Your task to perform on an android device: open app "LiveIn - Share Your Moment" Image 0: 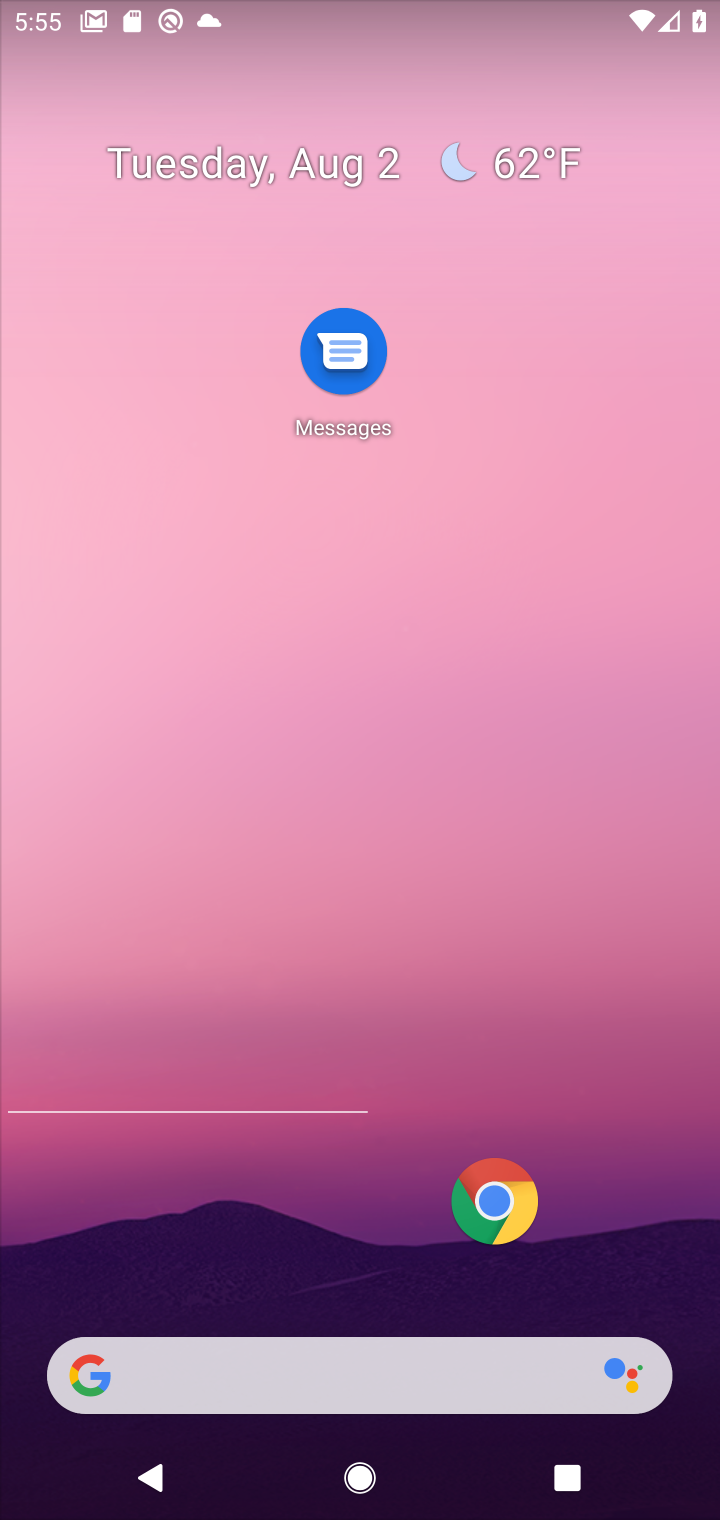
Step 0: click (559, 179)
Your task to perform on an android device: open app "LiveIn - Share Your Moment" Image 1: 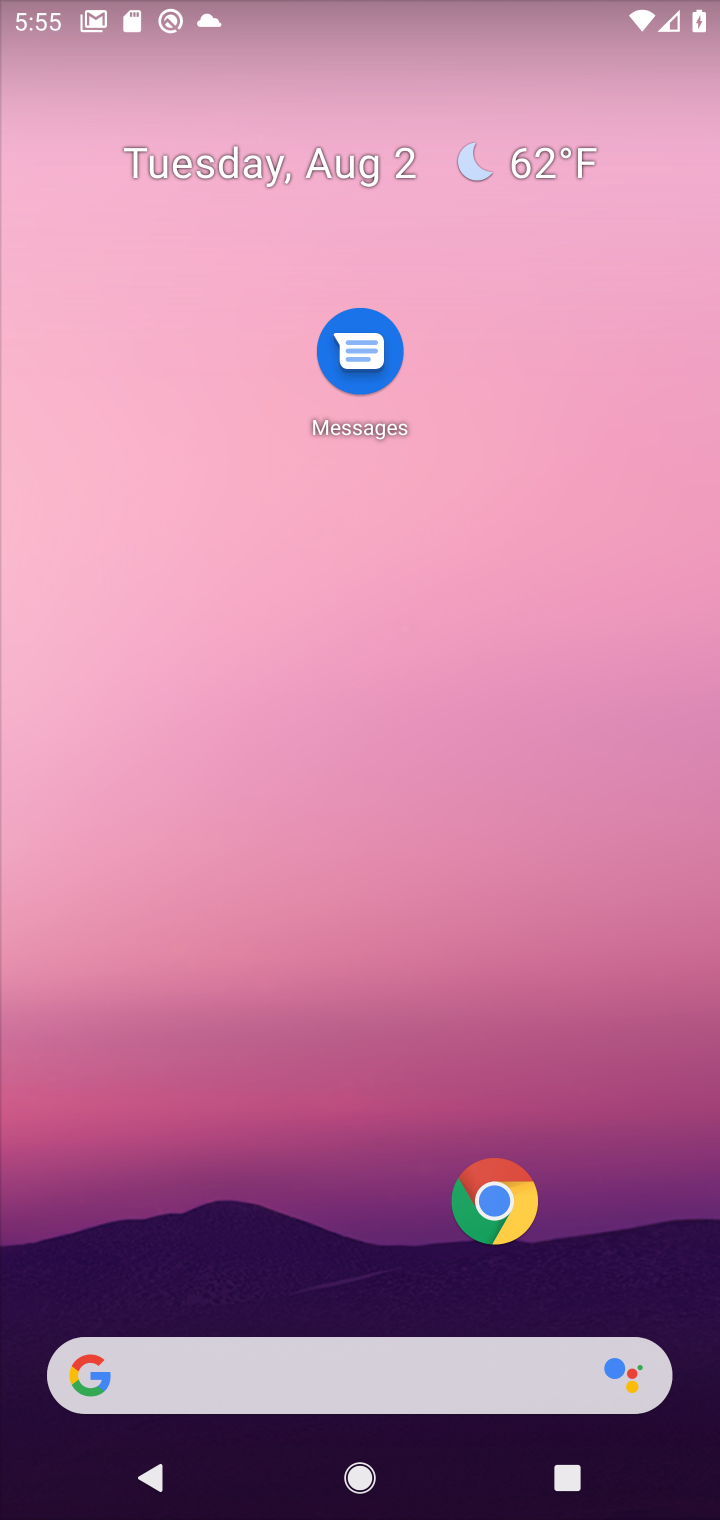
Step 1: drag from (292, 522) to (703, 1498)
Your task to perform on an android device: open app "LiveIn - Share Your Moment" Image 2: 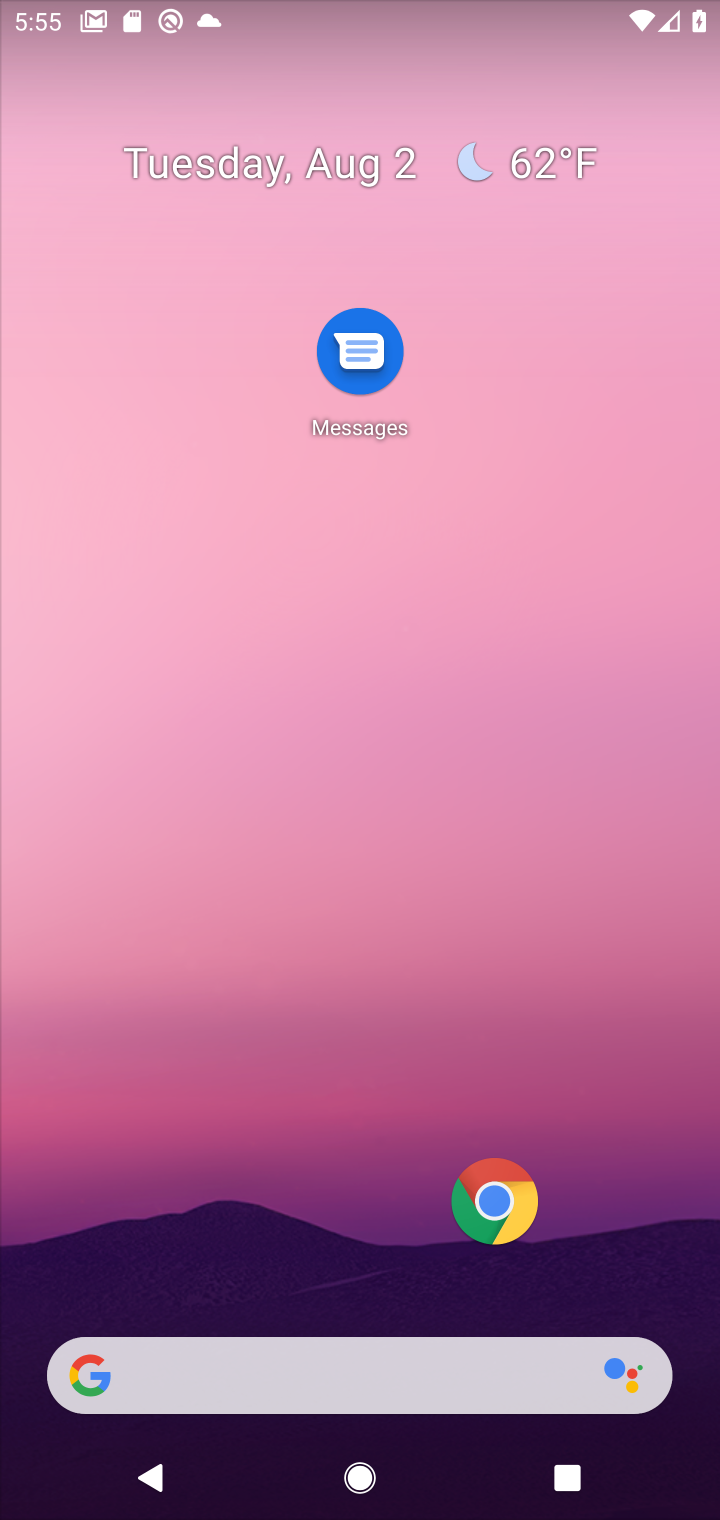
Step 2: drag from (357, 1118) to (441, 331)
Your task to perform on an android device: open app "LiveIn - Share Your Moment" Image 3: 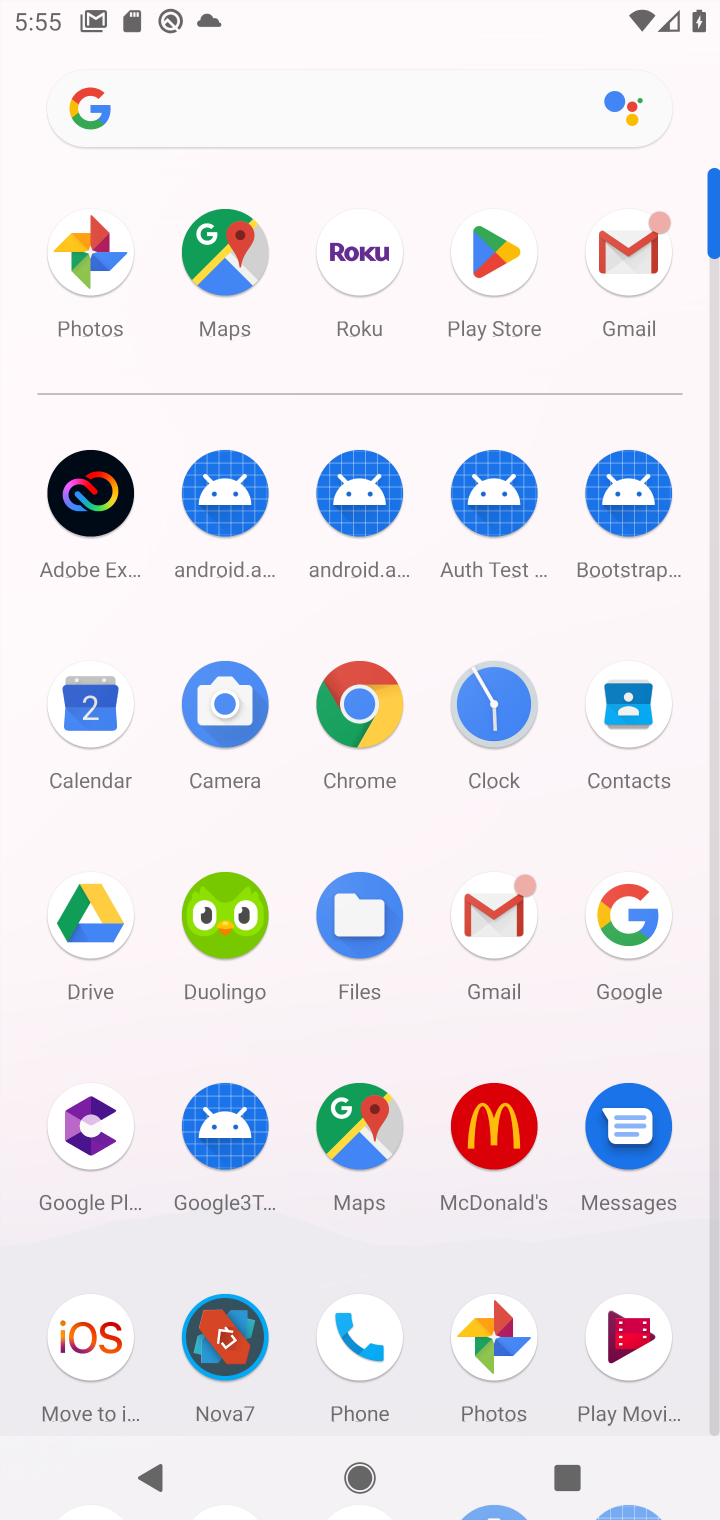
Step 3: drag from (404, 1303) to (378, 442)
Your task to perform on an android device: open app "LiveIn - Share Your Moment" Image 4: 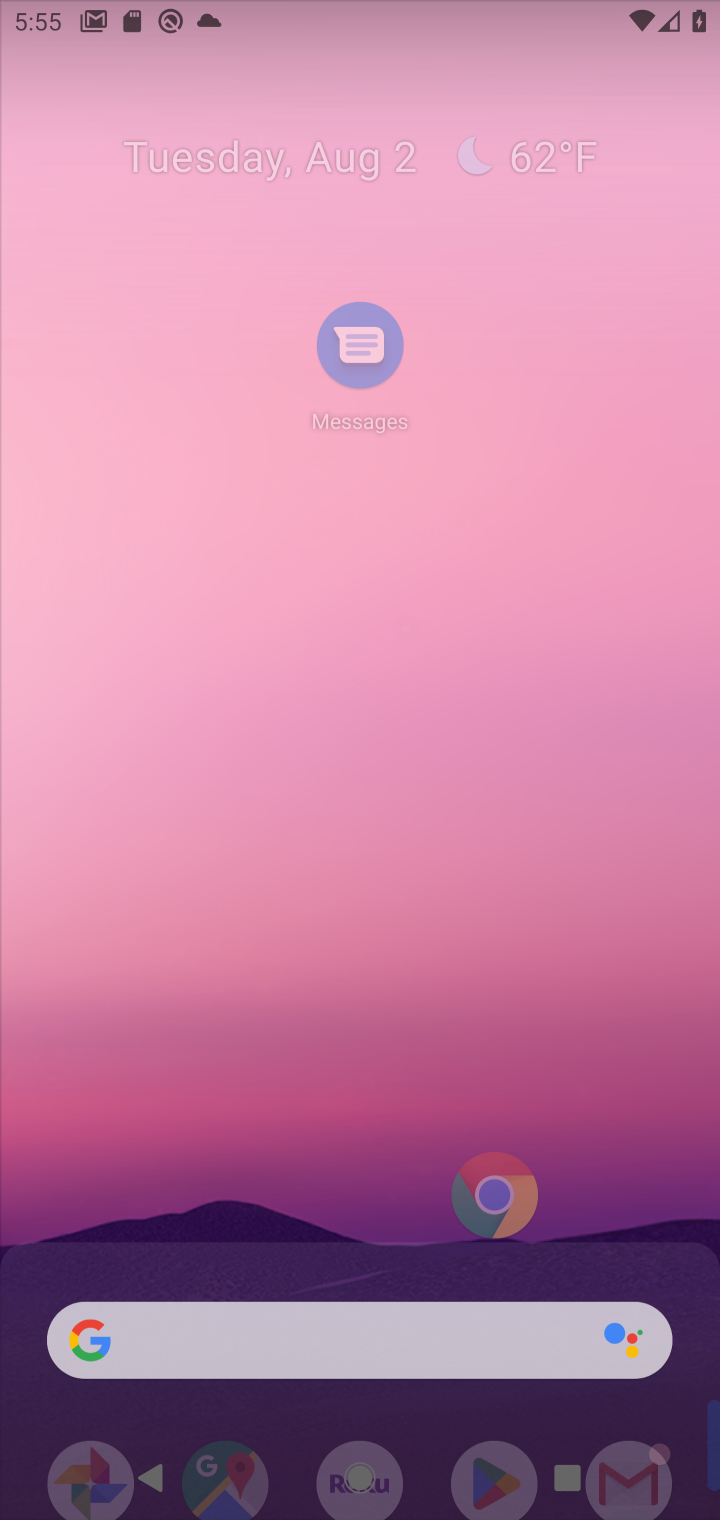
Step 4: drag from (439, 1260) to (477, 478)
Your task to perform on an android device: open app "LiveIn - Share Your Moment" Image 5: 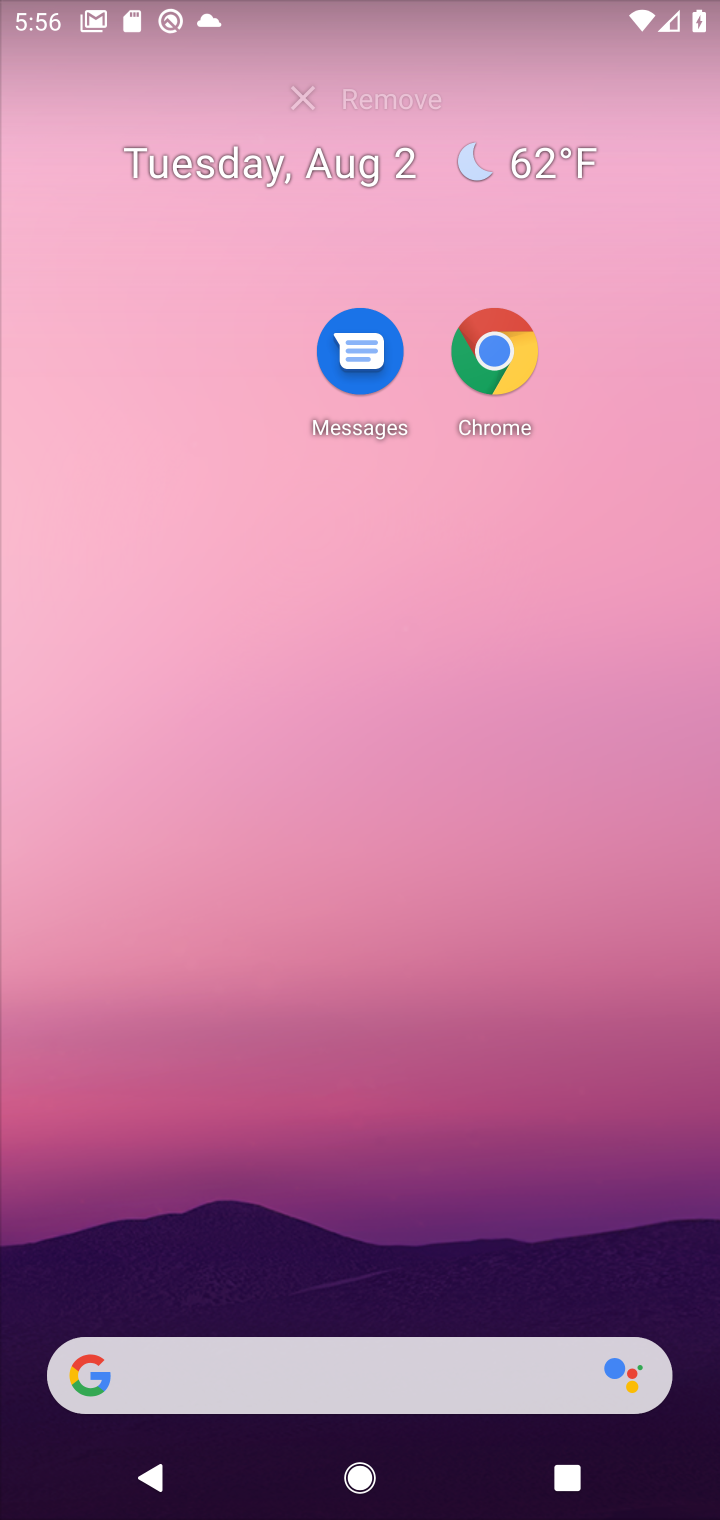
Step 5: drag from (395, 1253) to (395, 279)
Your task to perform on an android device: open app "LiveIn - Share Your Moment" Image 6: 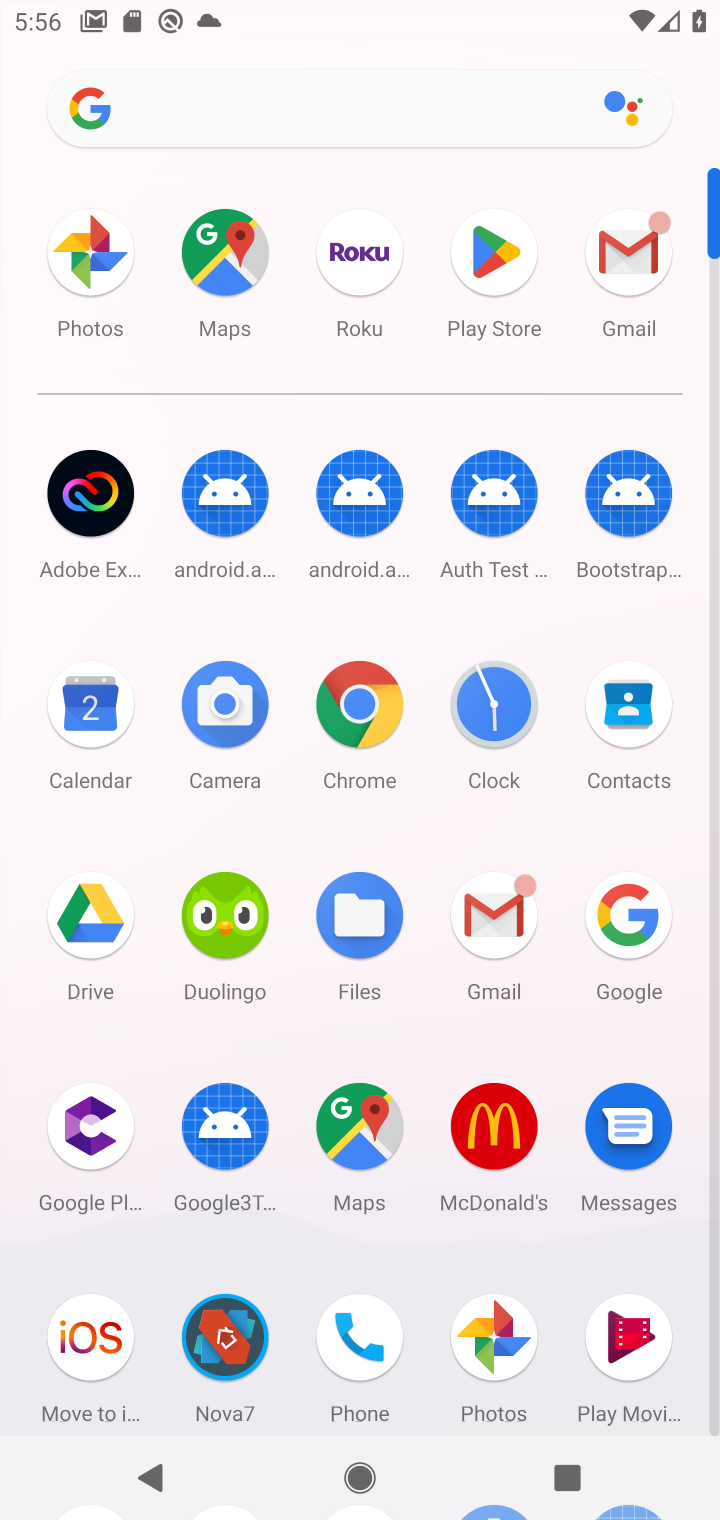
Step 6: click (514, 235)
Your task to perform on an android device: open app "LiveIn - Share Your Moment" Image 7: 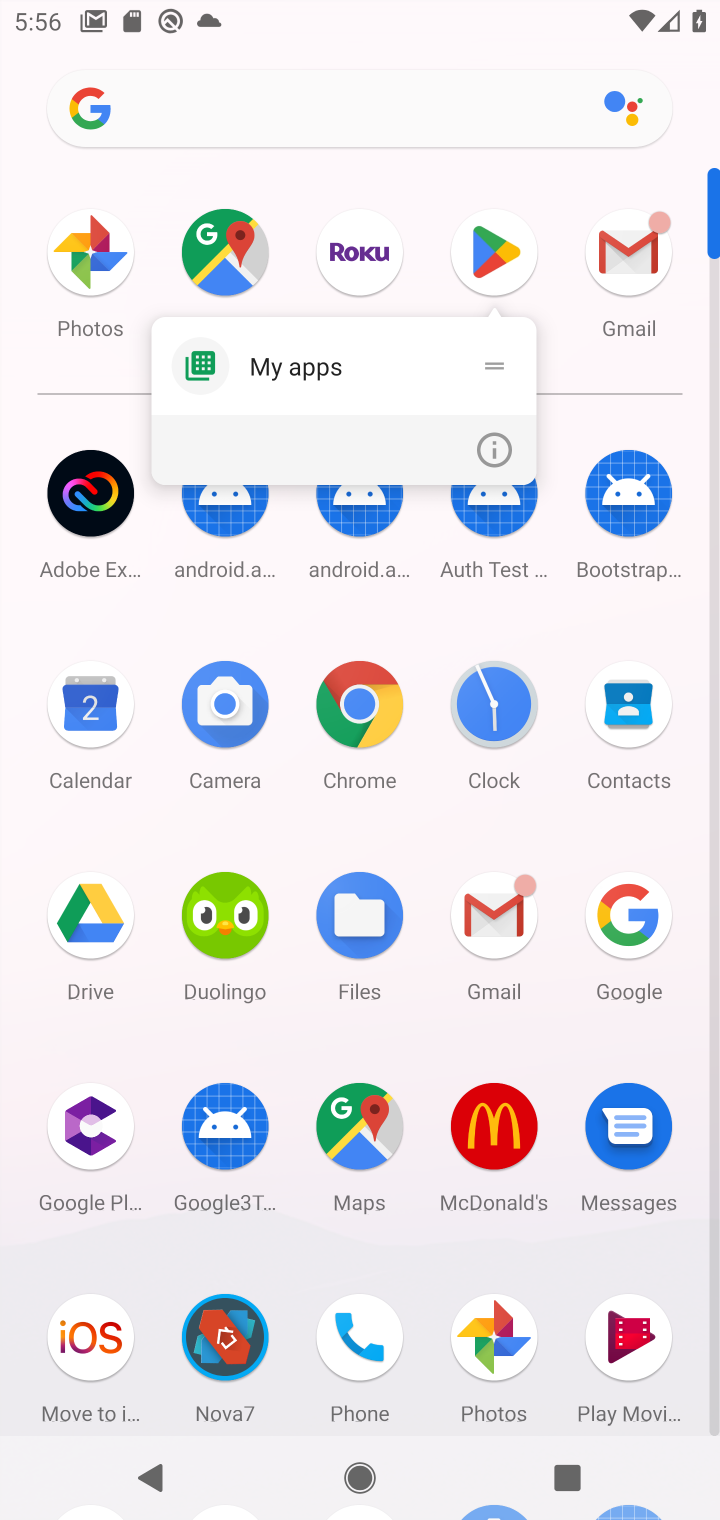
Step 7: click (503, 444)
Your task to perform on an android device: open app "LiveIn - Share Your Moment" Image 8: 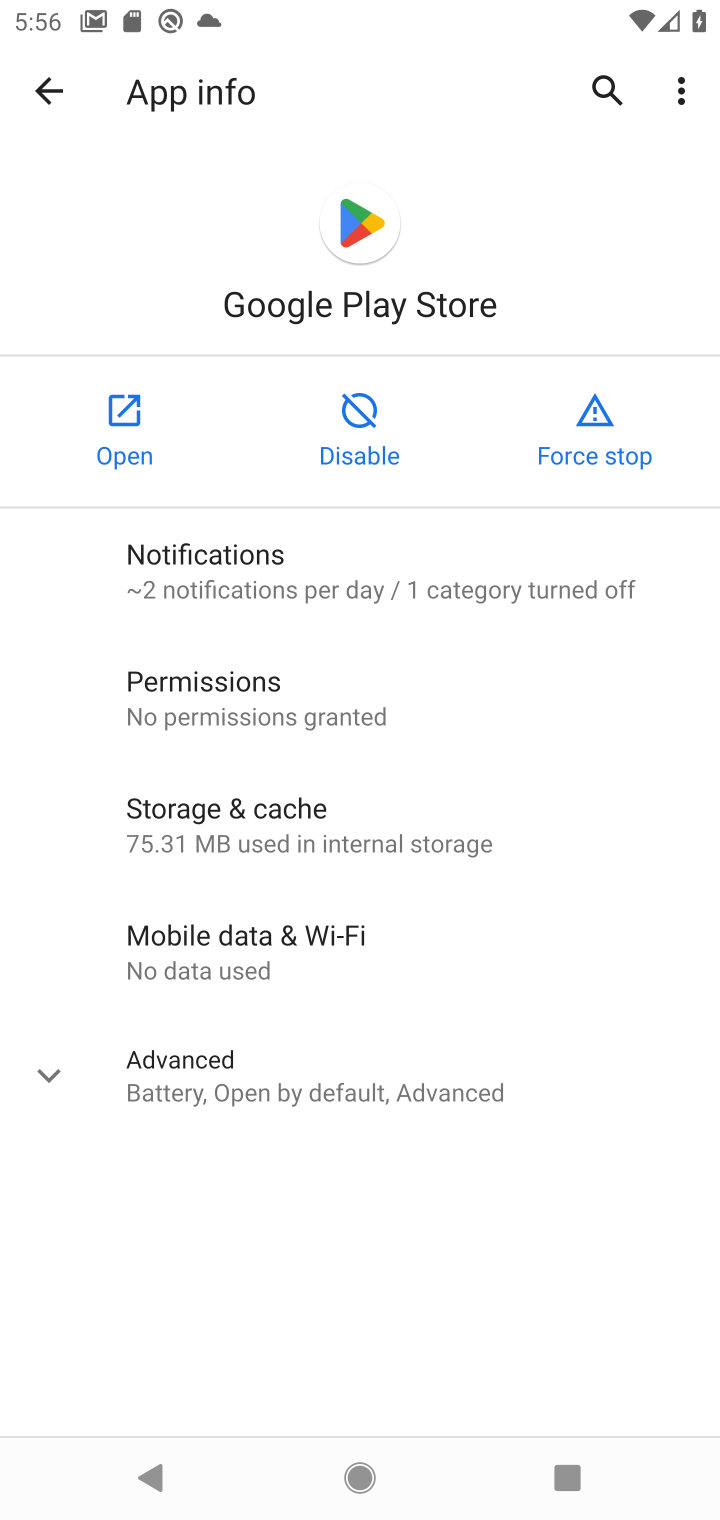
Step 8: click (118, 410)
Your task to perform on an android device: open app "LiveIn - Share Your Moment" Image 9: 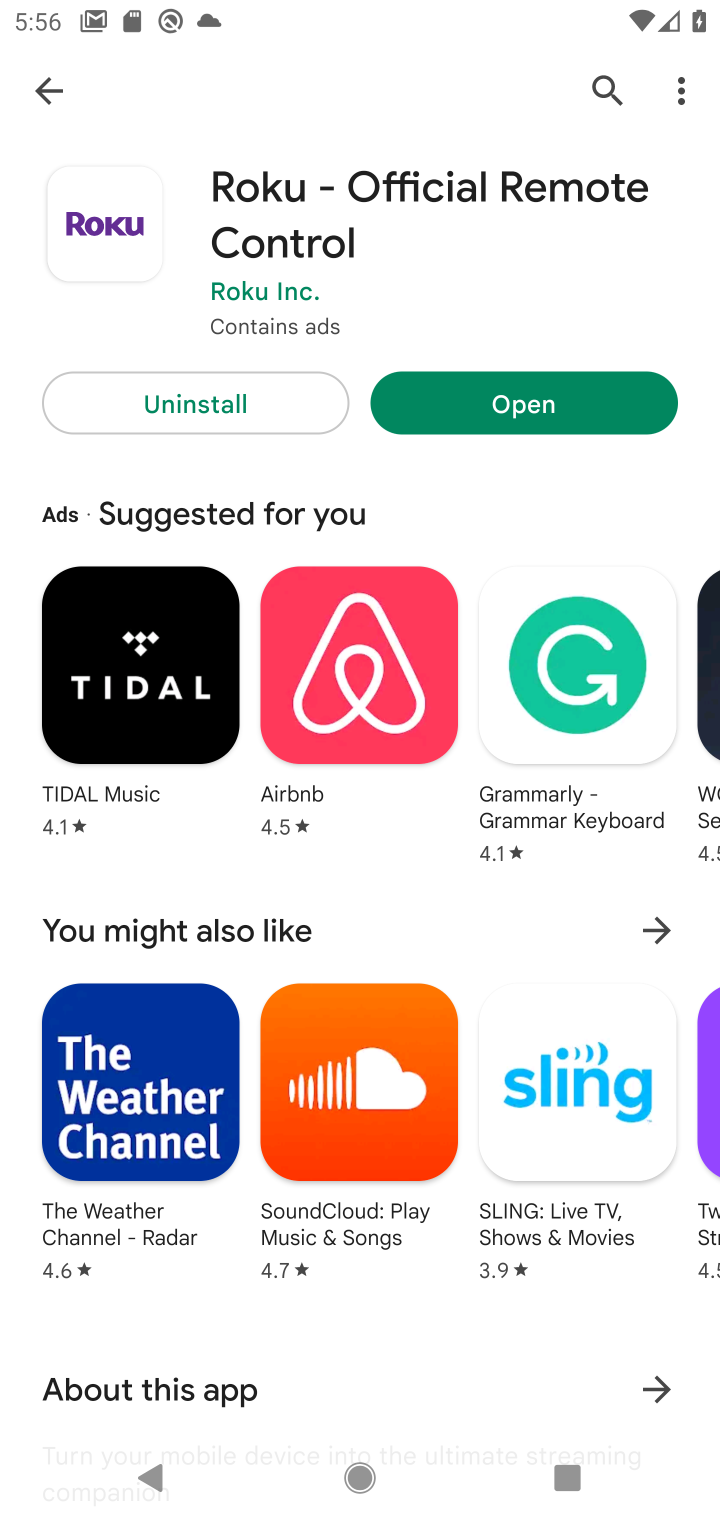
Step 9: drag from (284, 496) to (151, 1514)
Your task to perform on an android device: open app "LiveIn - Share Your Moment" Image 10: 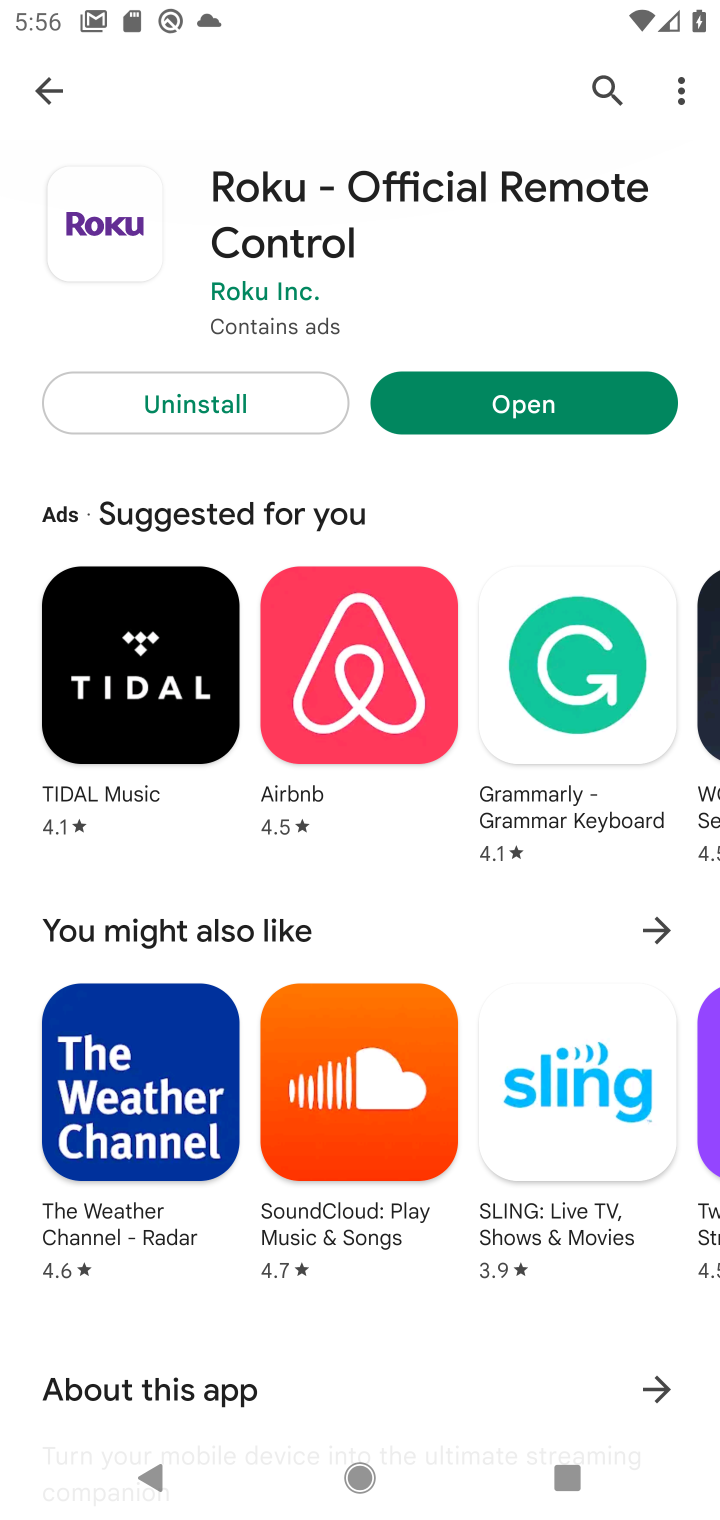
Step 10: drag from (392, 636) to (514, 1291)
Your task to perform on an android device: open app "LiveIn - Share Your Moment" Image 11: 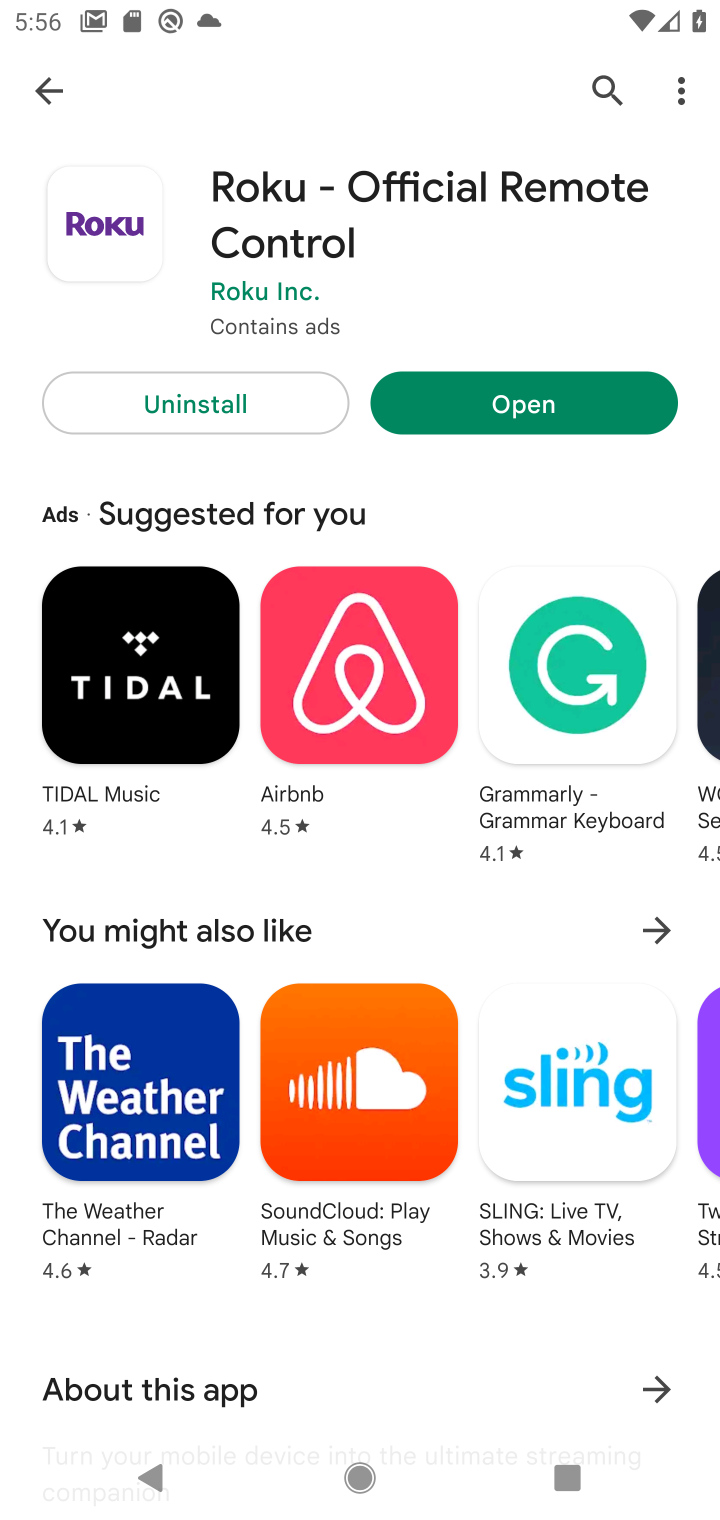
Step 11: drag from (359, 563) to (86, 175)
Your task to perform on an android device: open app "LiveIn - Share Your Moment" Image 12: 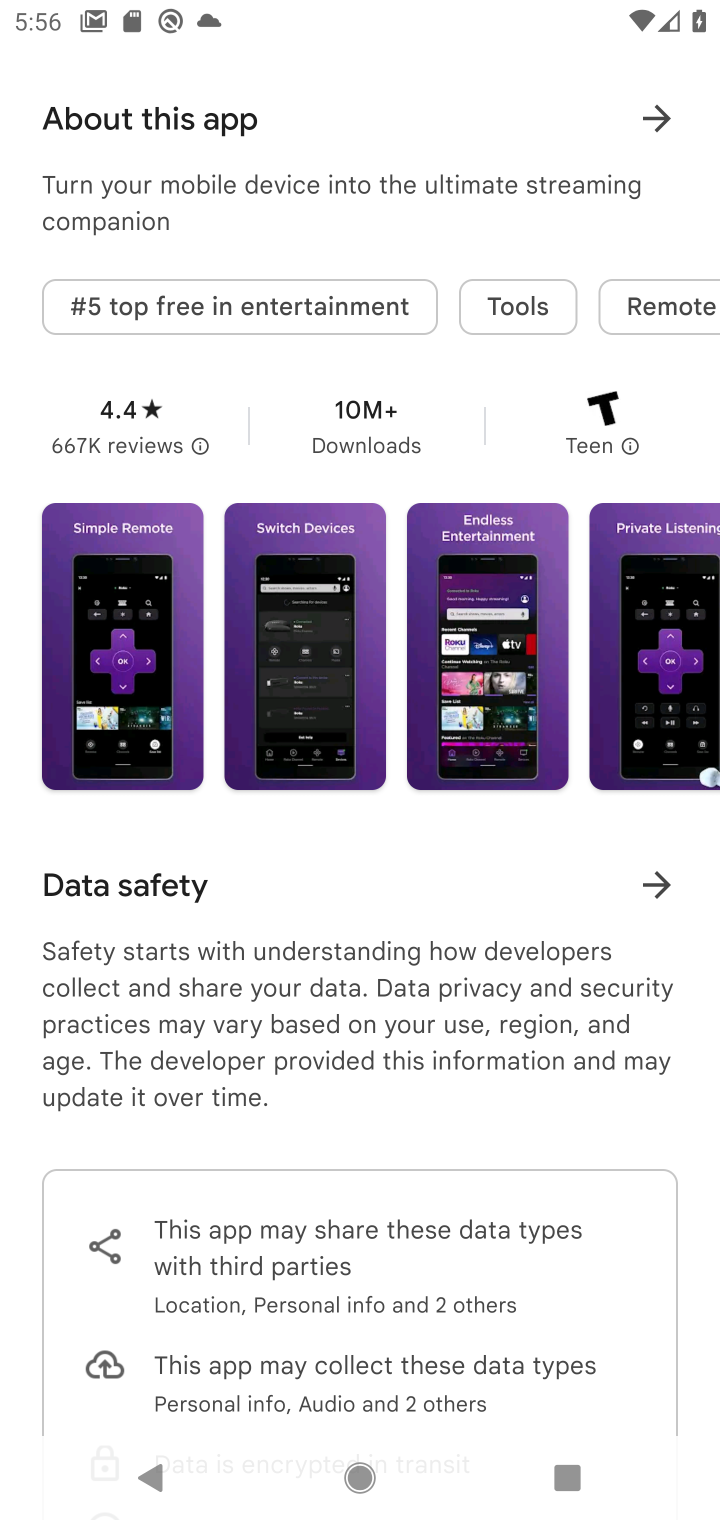
Step 12: drag from (342, 525) to (487, 1500)
Your task to perform on an android device: open app "LiveIn - Share Your Moment" Image 13: 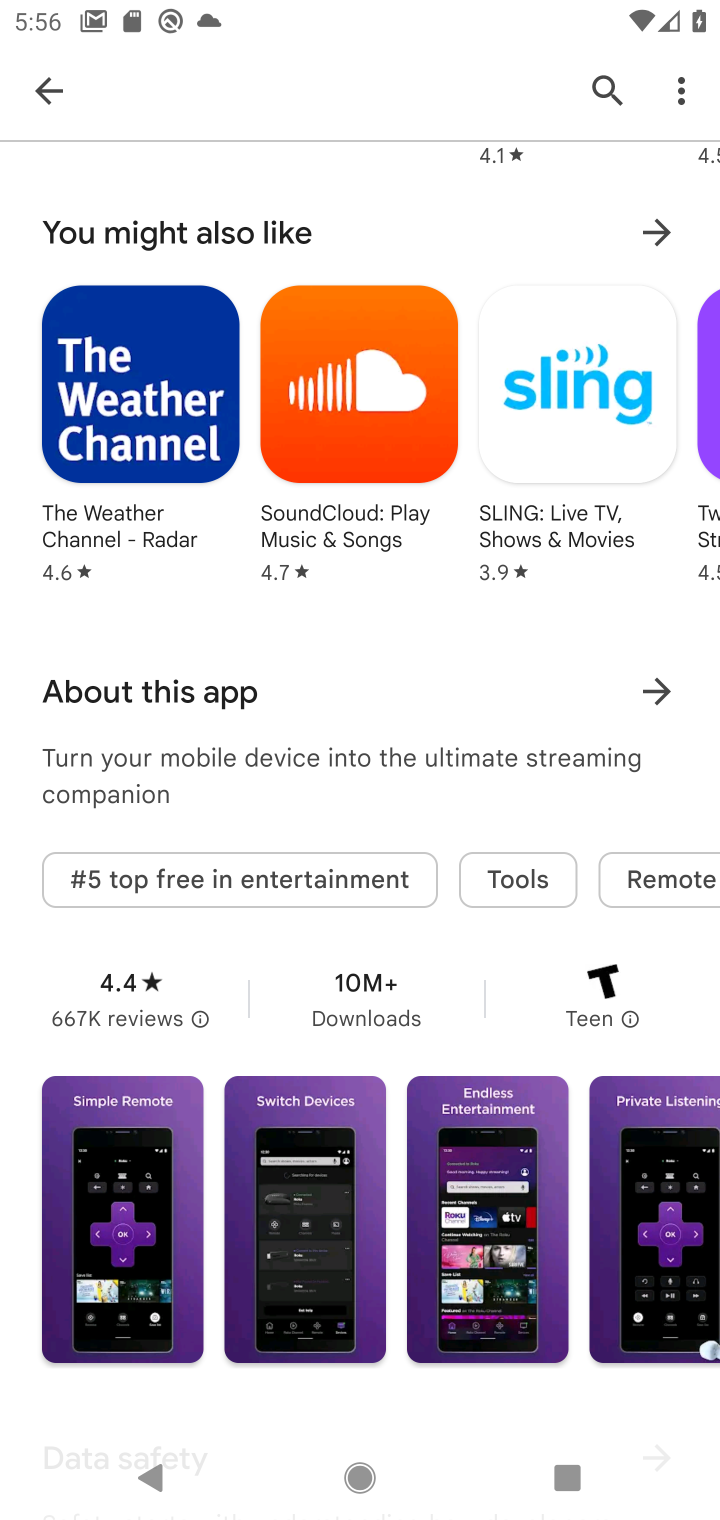
Step 13: drag from (385, 968) to (441, 1511)
Your task to perform on an android device: open app "LiveIn - Share Your Moment" Image 14: 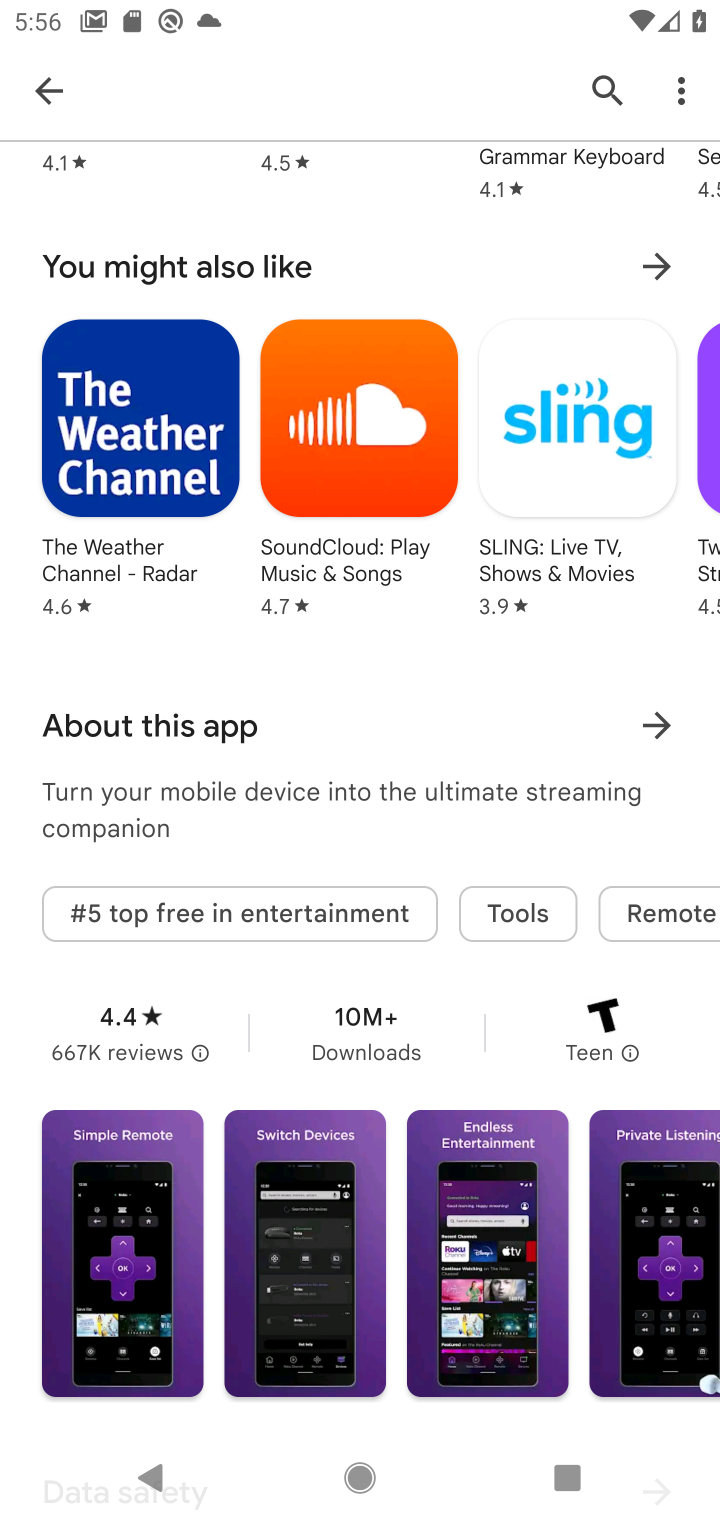
Step 14: drag from (333, 519) to (557, 1511)
Your task to perform on an android device: open app "LiveIn - Share Your Moment" Image 15: 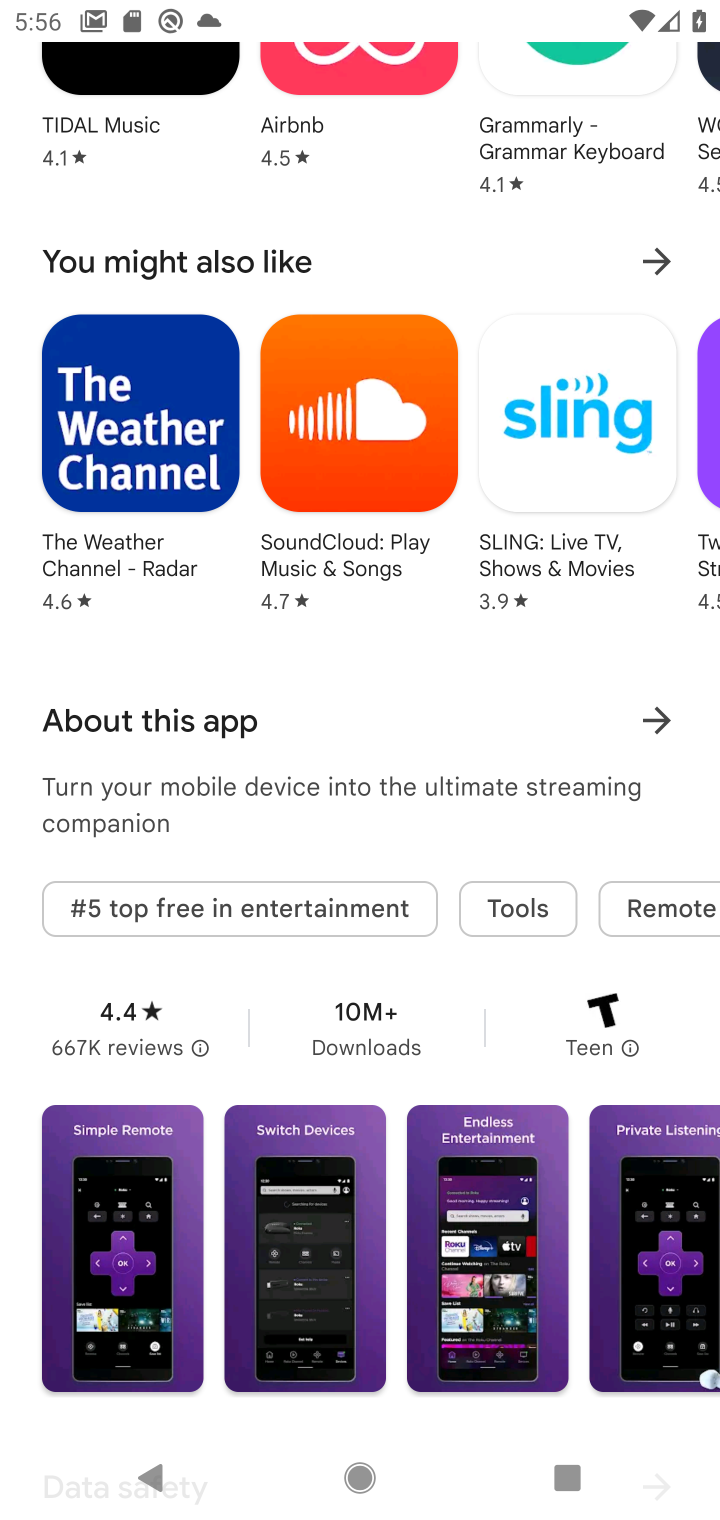
Step 15: drag from (386, 971) to (675, 40)
Your task to perform on an android device: open app "LiveIn - Share Your Moment" Image 16: 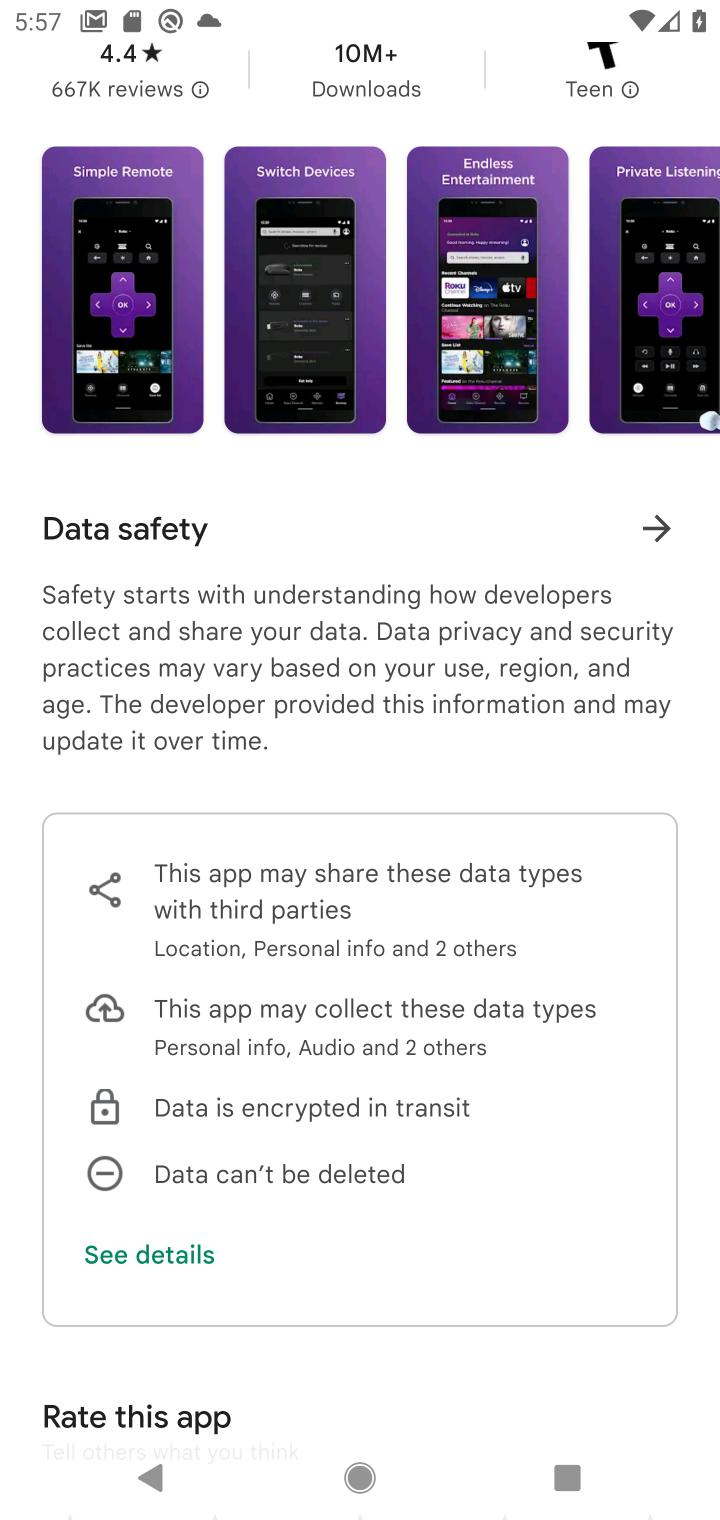
Step 16: drag from (314, 345) to (477, 1457)
Your task to perform on an android device: open app "LiveIn - Share Your Moment" Image 17: 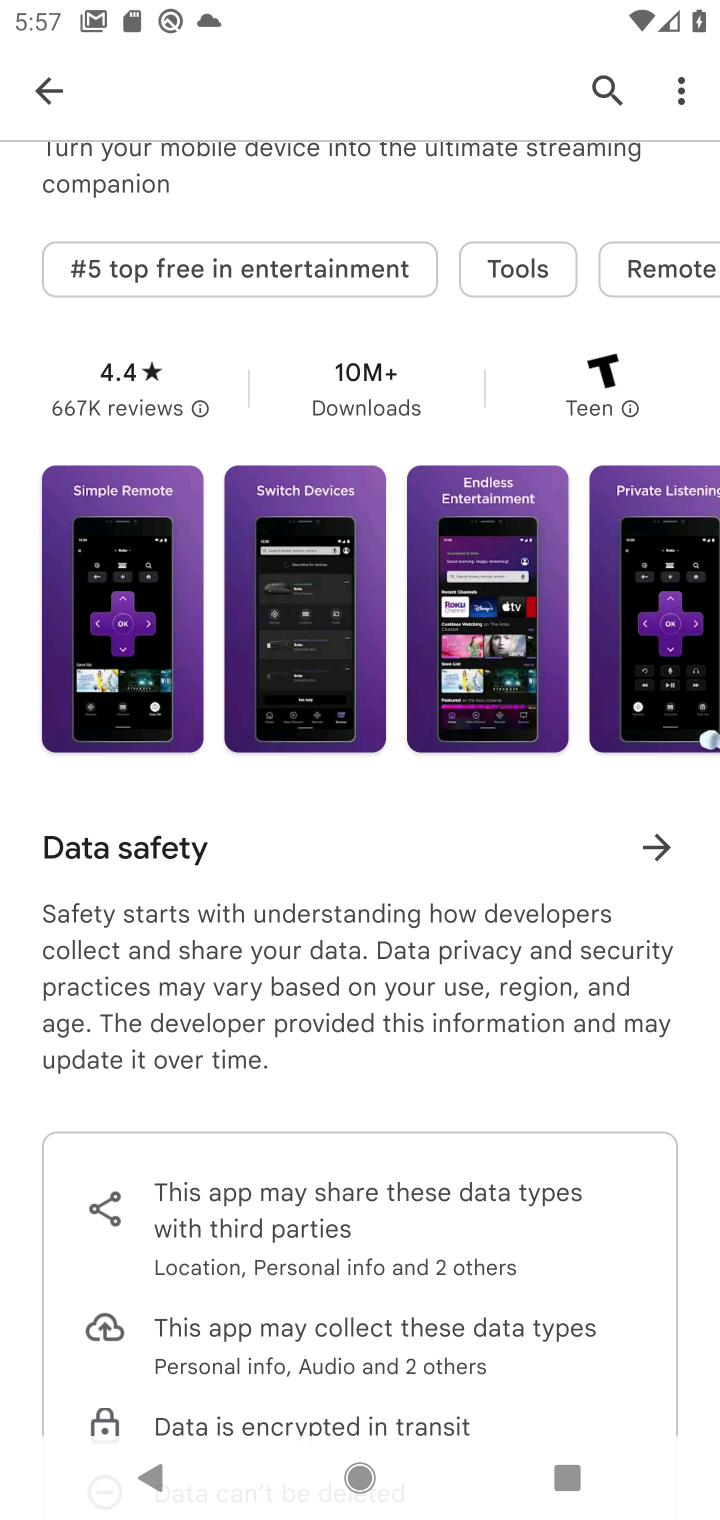
Step 17: drag from (484, 321) to (459, 1506)
Your task to perform on an android device: open app "LiveIn - Share Your Moment" Image 18: 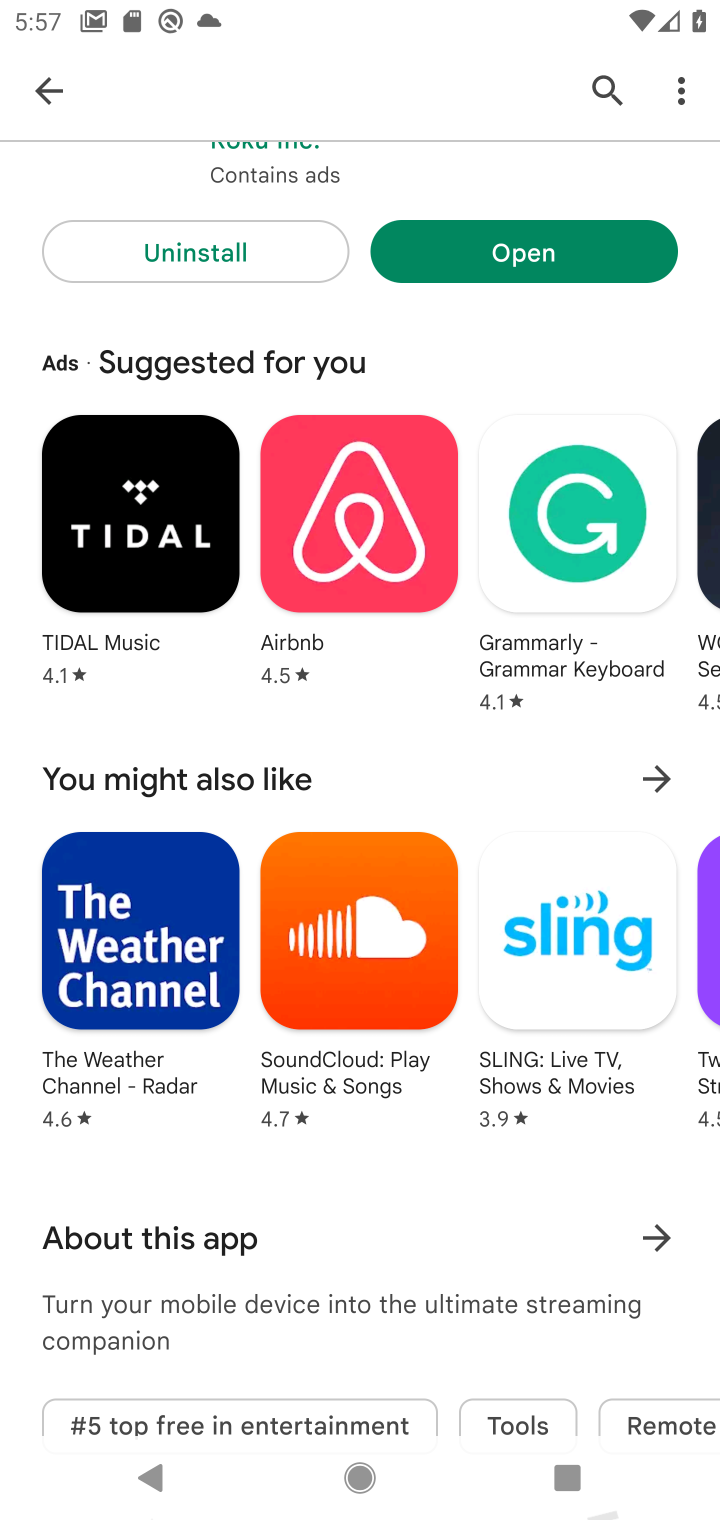
Step 18: drag from (379, 347) to (466, 1502)
Your task to perform on an android device: open app "LiveIn - Share Your Moment" Image 19: 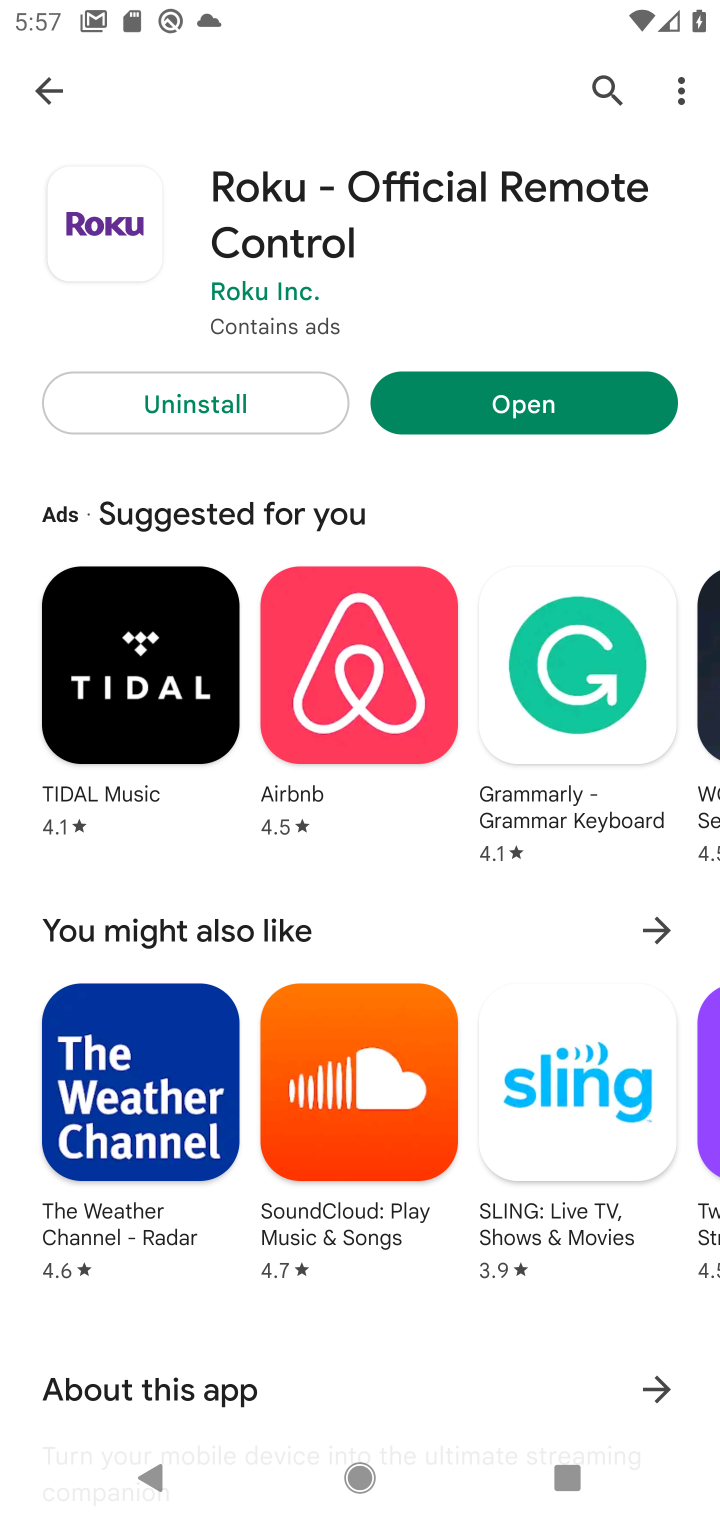
Step 19: drag from (391, 287) to (577, 1347)
Your task to perform on an android device: open app "LiveIn - Share Your Moment" Image 20: 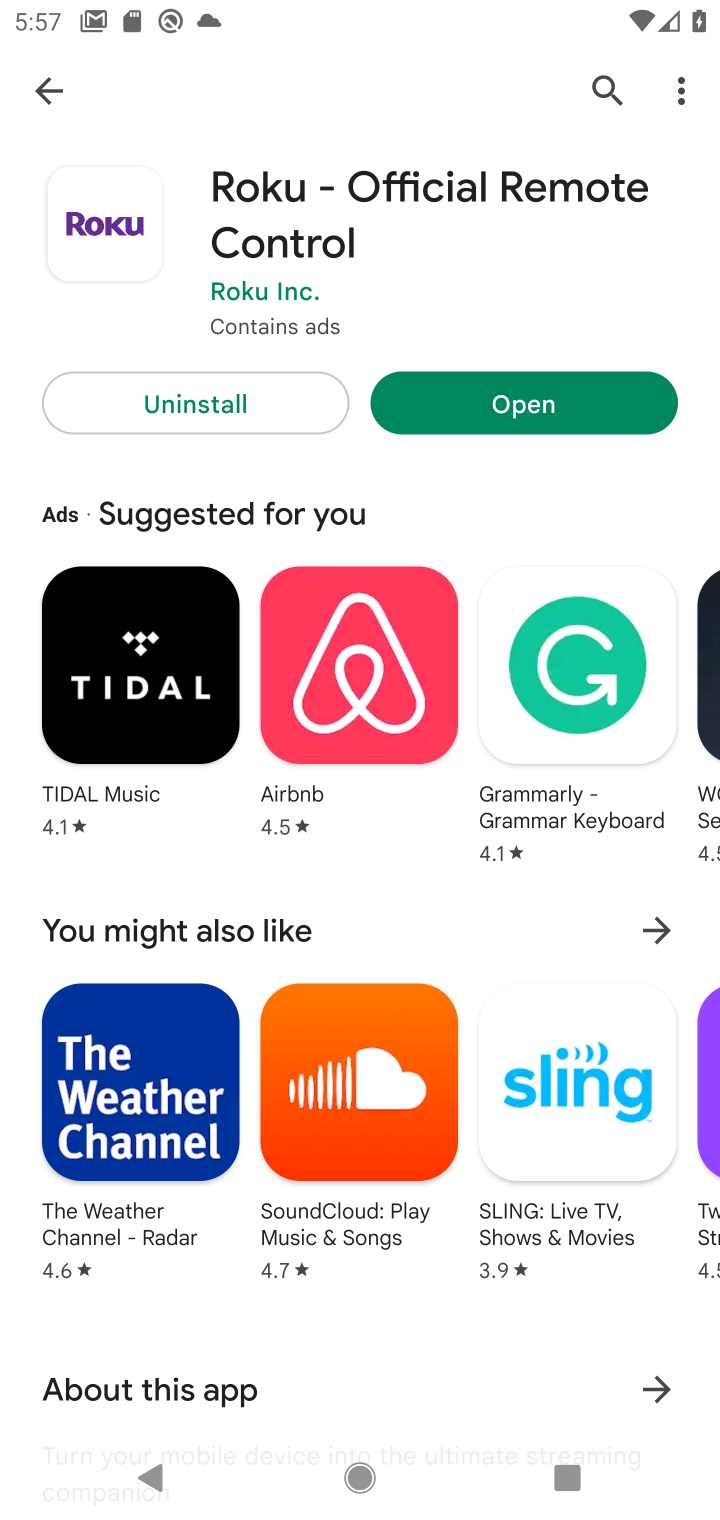
Step 20: drag from (398, 361) to (380, 1357)
Your task to perform on an android device: open app "LiveIn - Share Your Moment" Image 21: 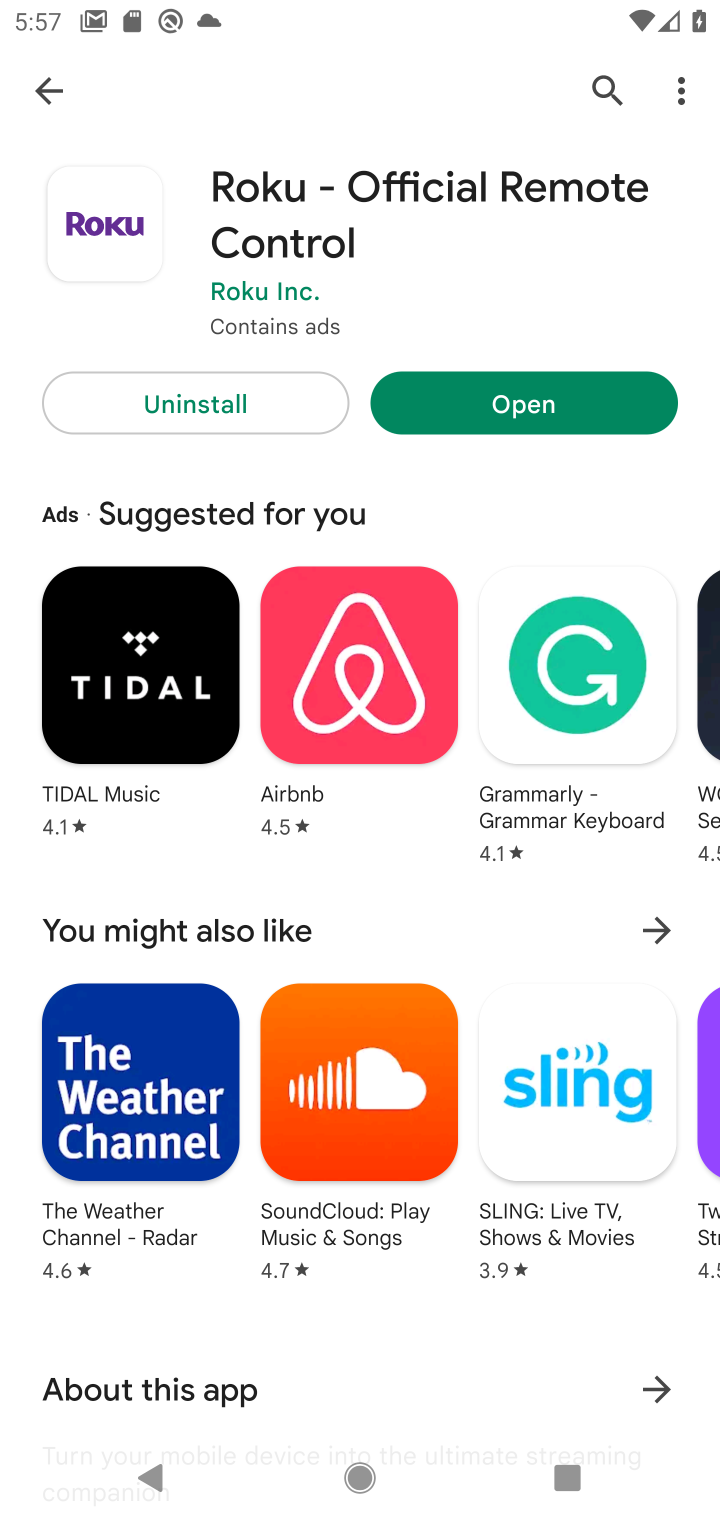
Step 21: drag from (405, 343) to (455, 1400)
Your task to perform on an android device: open app "LiveIn - Share Your Moment" Image 22: 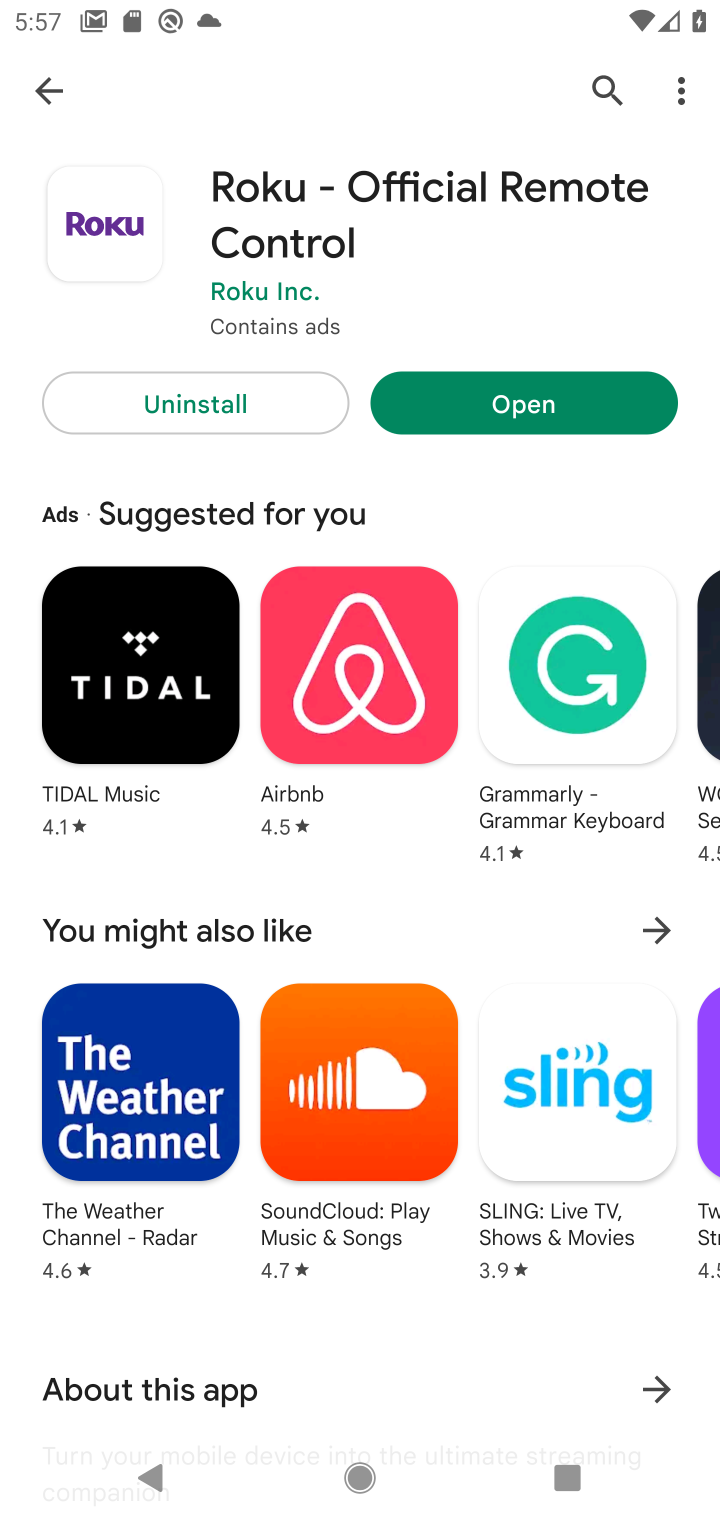
Step 22: drag from (438, 241) to (531, 1381)
Your task to perform on an android device: open app "LiveIn - Share Your Moment" Image 23: 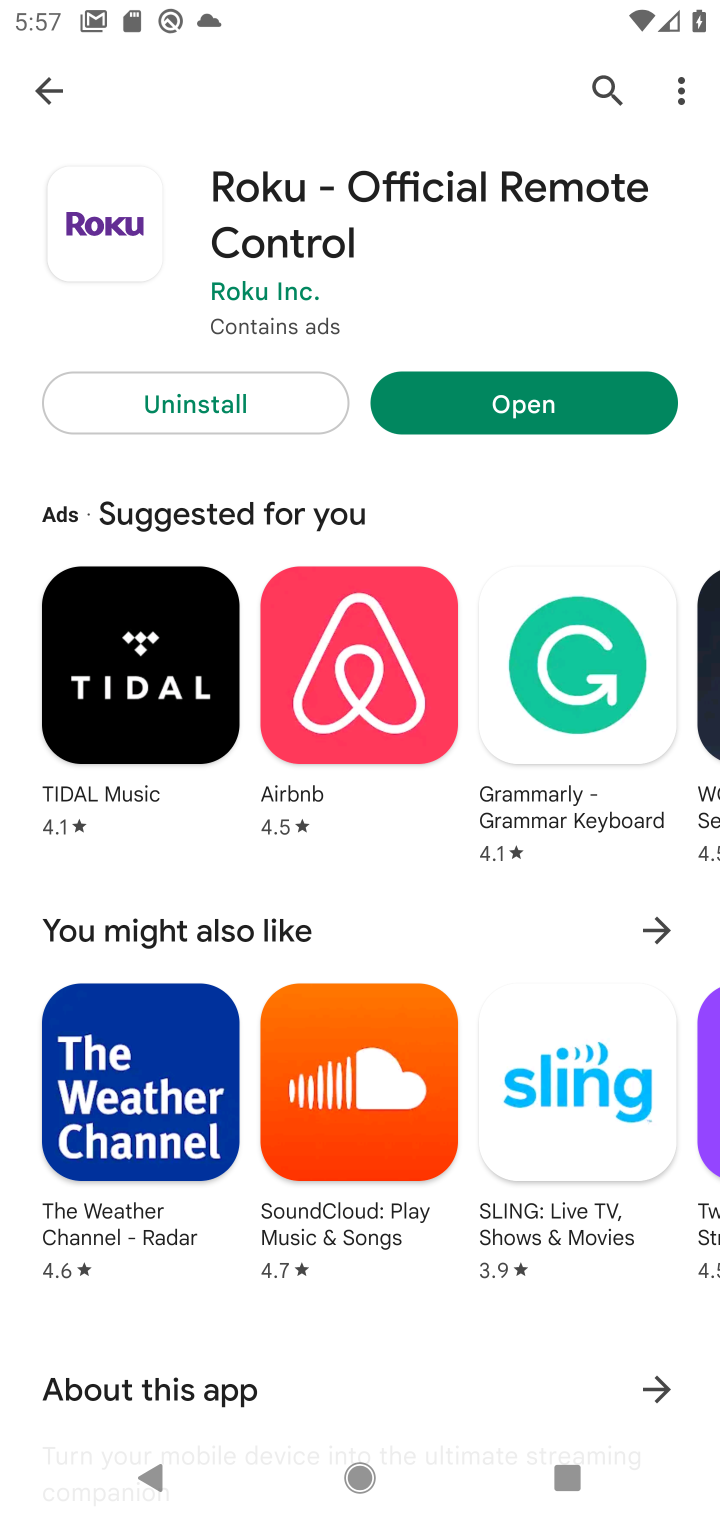
Step 23: drag from (443, 294) to (594, 1272)
Your task to perform on an android device: open app "LiveIn - Share Your Moment" Image 24: 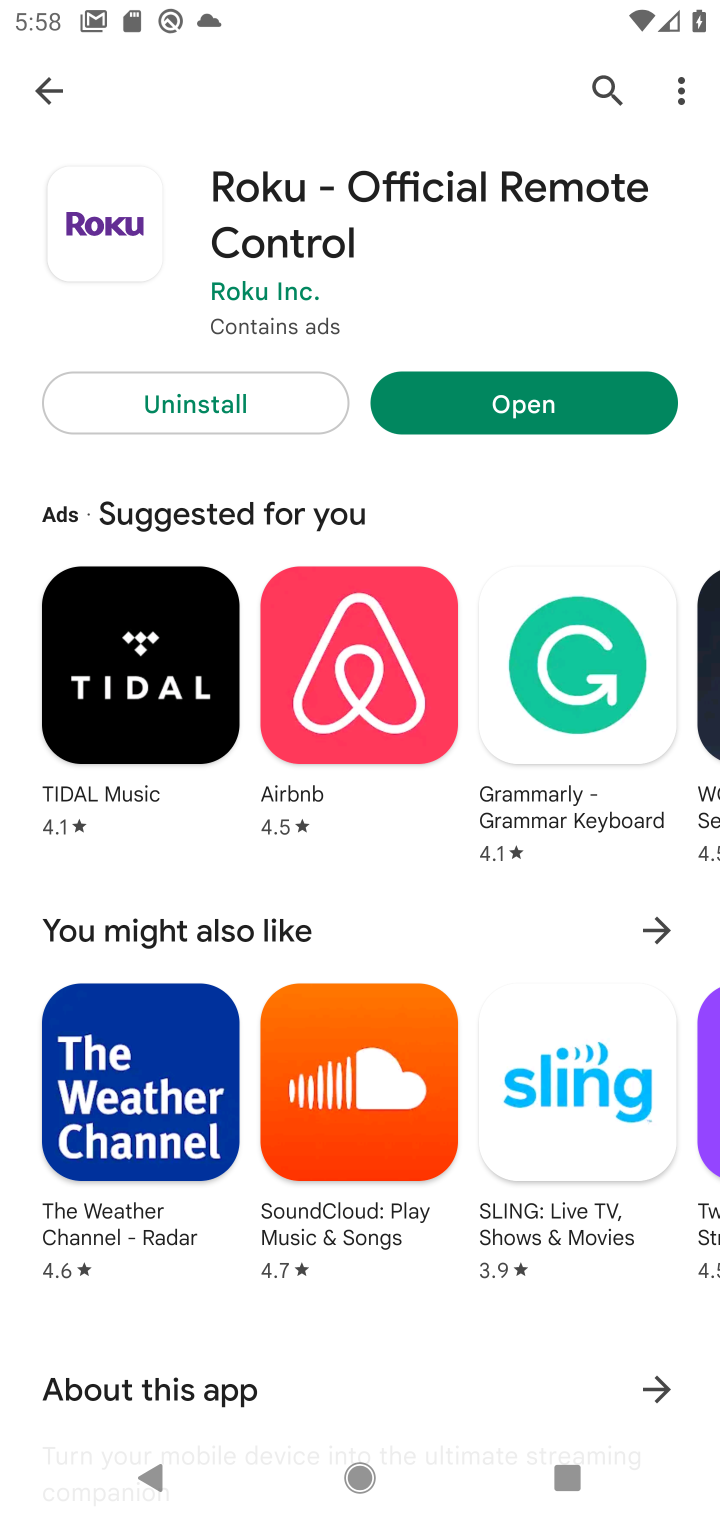
Step 24: click (618, 97)
Your task to perform on an android device: open app "LiveIn - Share Your Moment" Image 25: 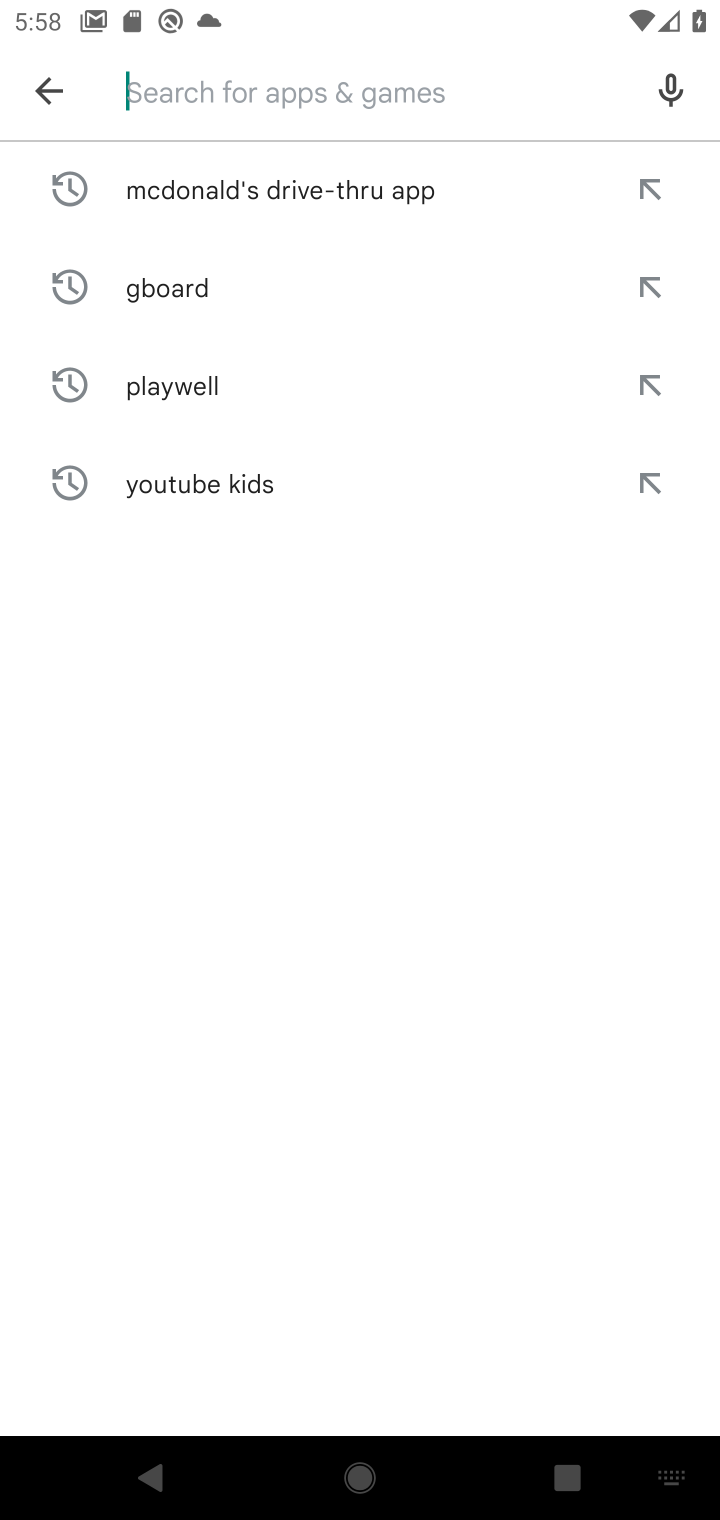
Step 25: type "LiveIn - Share Your Moment"
Your task to perform on an android device: open app "LiveIn - Share Your Moment" Image 26: 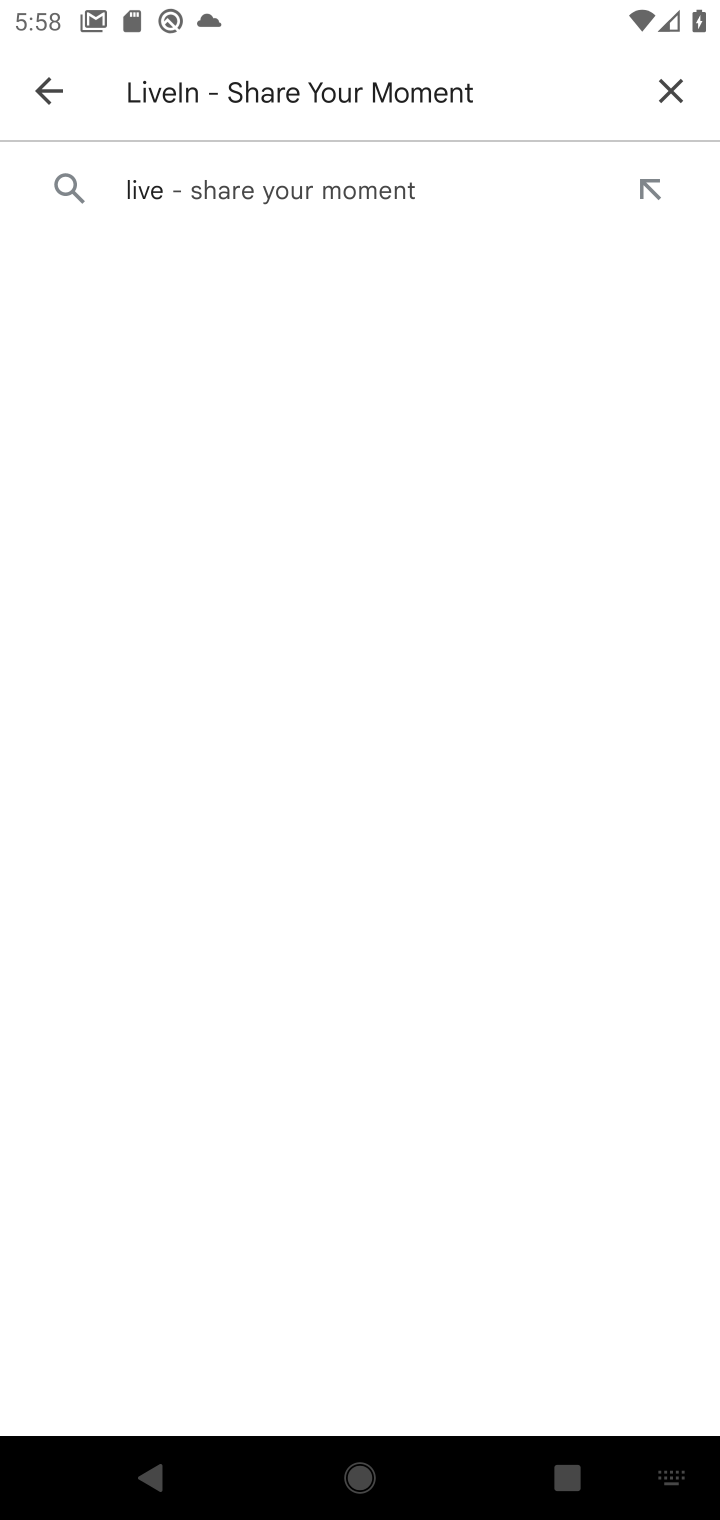
Step 26: drag from (342, 460) to (279, 1295)
Your task to perform on an android device: open app "LiveIn - Share Your Moment" Image 27: 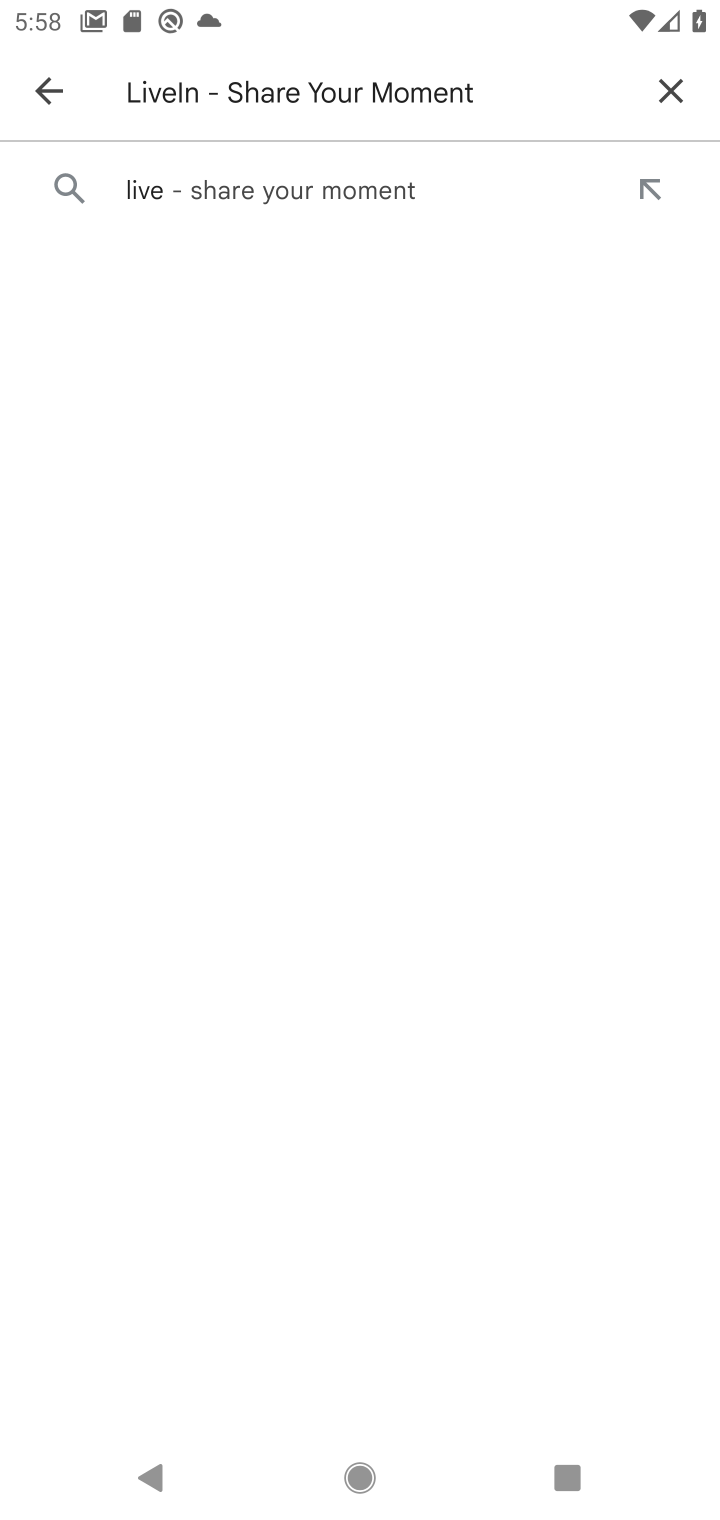
Step 27: click (224, 185)
Your task to perform on an android device: open app "LiveIn - Share Your Moment" Image 28: 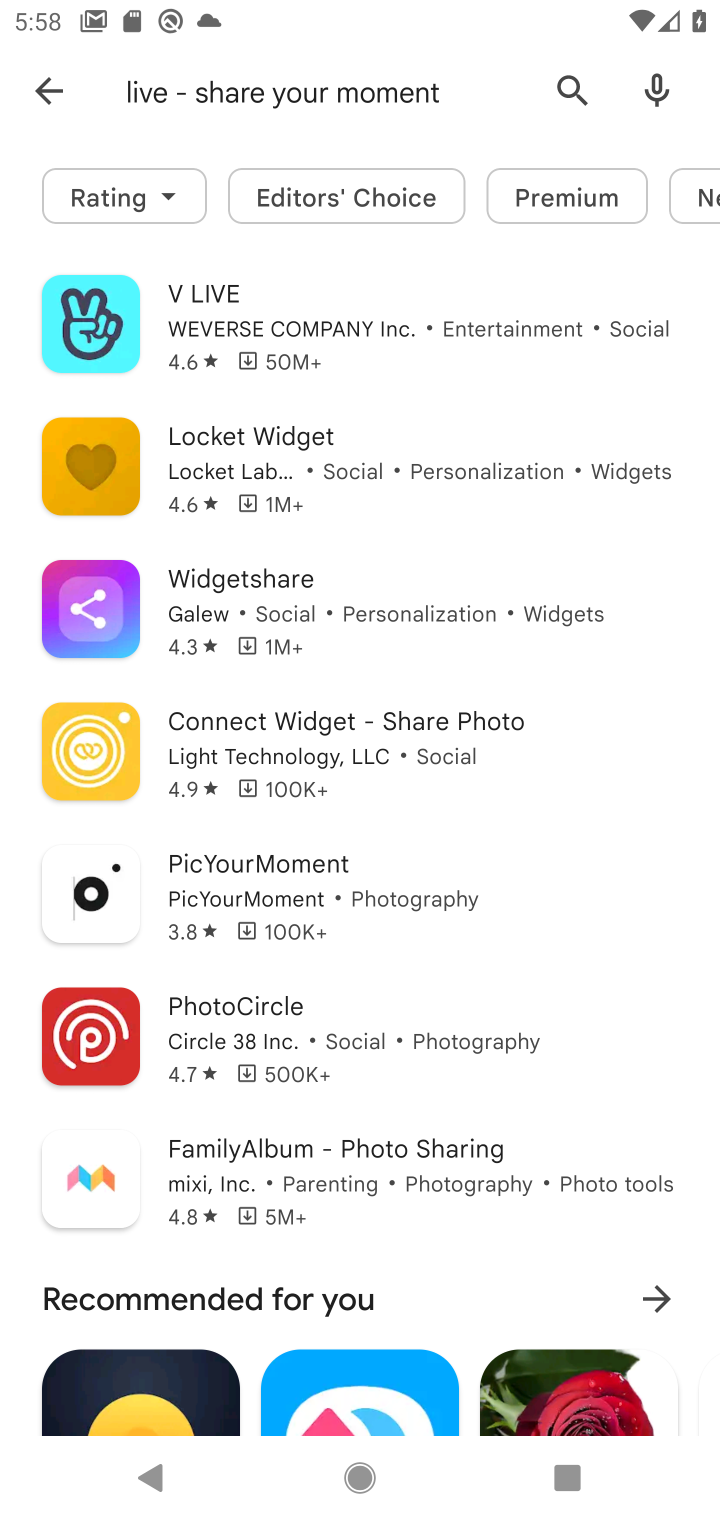
Step 28: task complete